Your task to perform on an android device: What is the news today? Image 0: 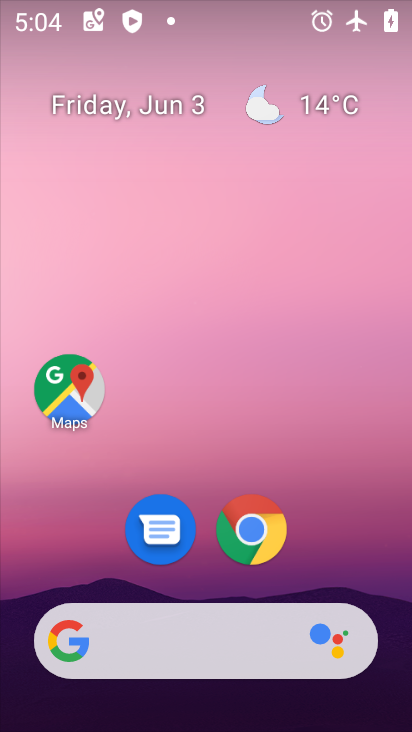
Step 0: press home button
Your task to perform on an android device: What is the news today? Image 1: 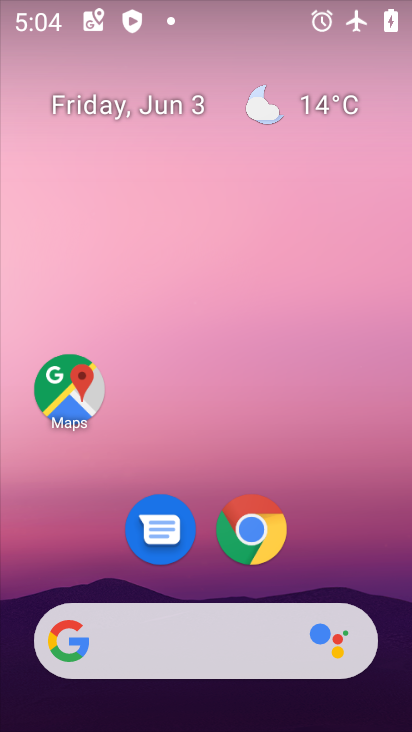
Step 1: task complete